Your task to perform on an android device: turn on location history Image 0: 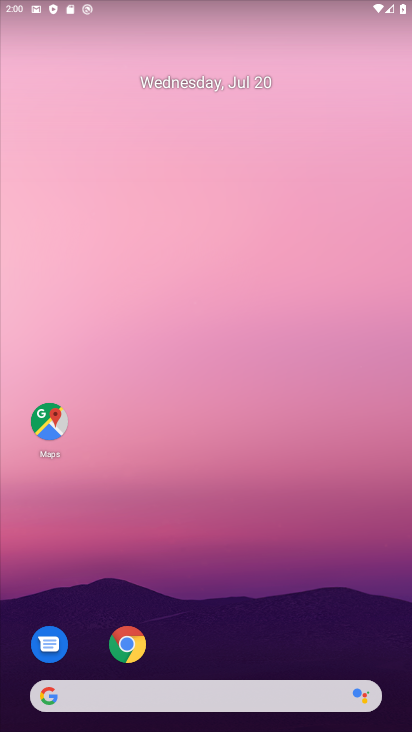
Step 0: click (34, 445)
Your task to perform on an android device: turn on location history Image 1: 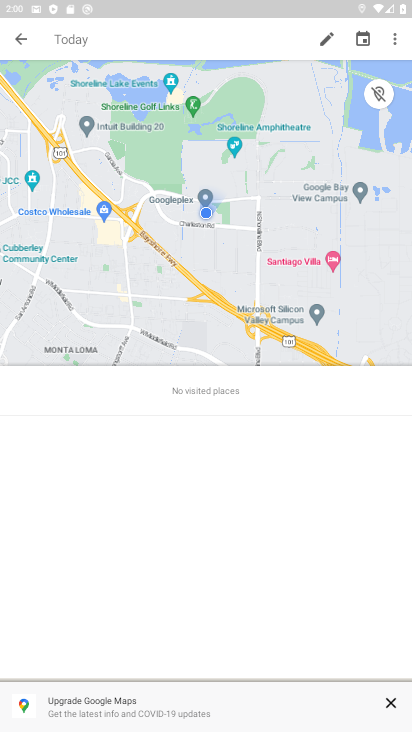
Step 1: drag from (394, 39) to (293, 249)
Your task to perform on an android device: turn on location history Image 2: 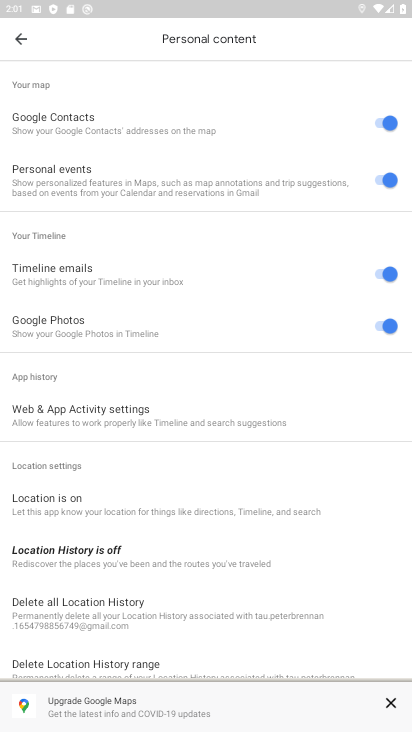
Step 2: click (109, 560)
Your task to perform on an android device: turn on location history Image 3: 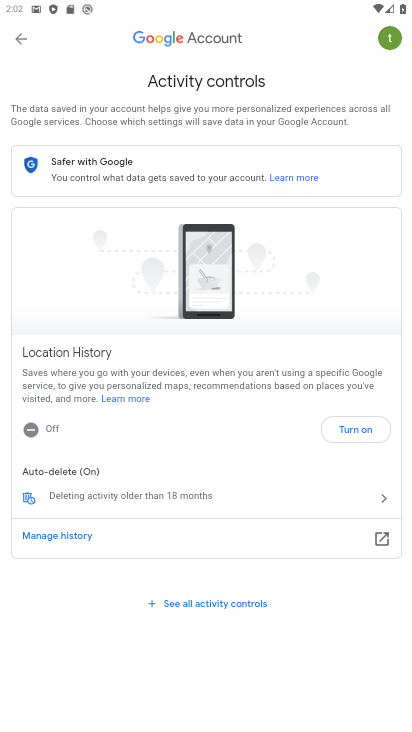
Step 3: click (357, 434)
Your task to perform on an android device: turn on location history Image 4: 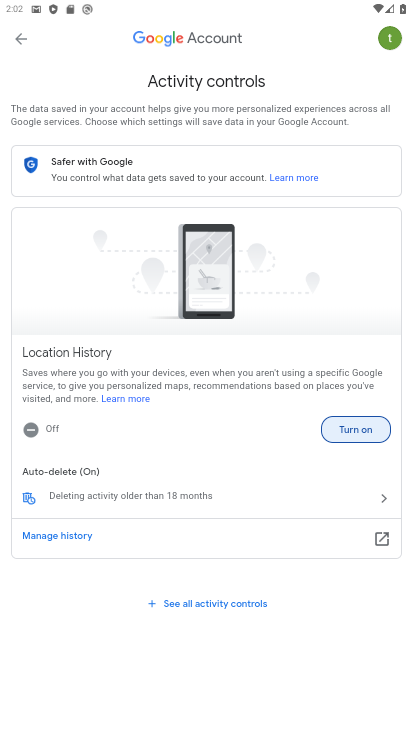
Step 4: click (357, 428)
Your task to perform on an android device: turn on location history Image 5: 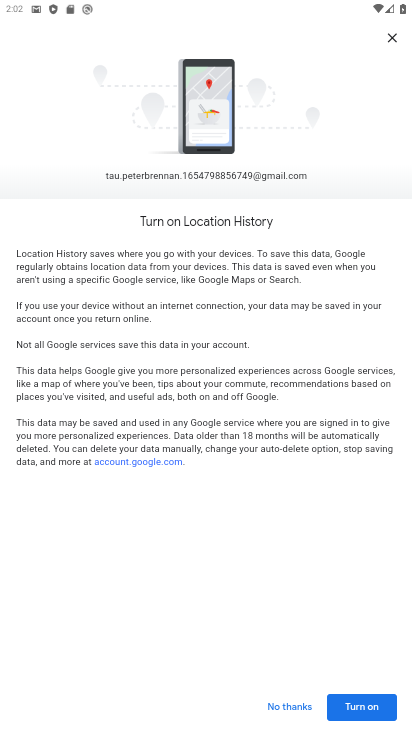
Step 5: click (352, 718)
Your task to perform on an android device: turn on location history Image 6: 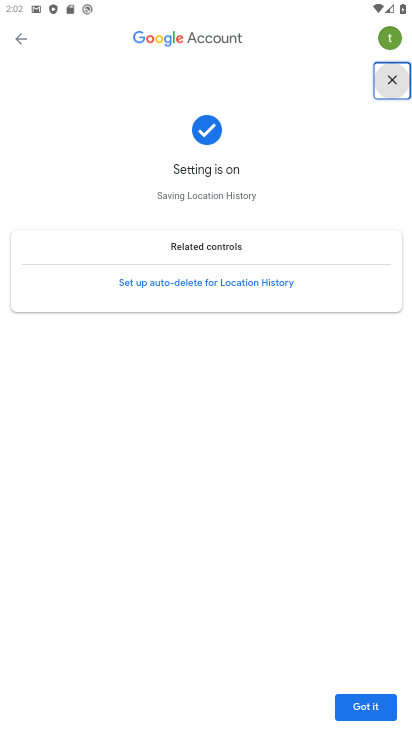
Step 6: click (351, 700)
Your task to perform on an android device: turn on location history Image 7: 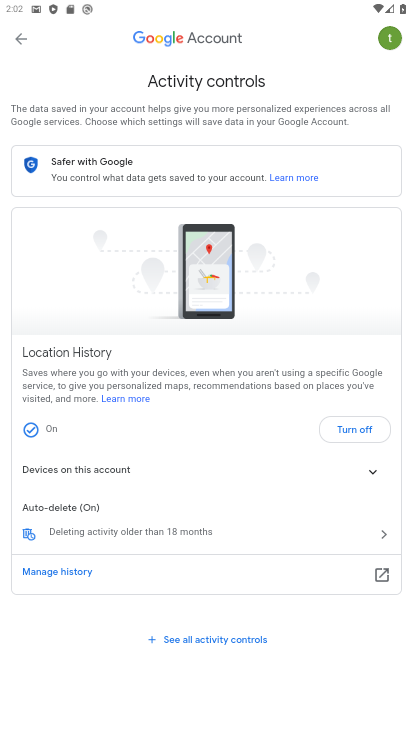
Step 7: task complete